Your task to perform on an android device: Show me productivity apps on the Play Store Image 0: 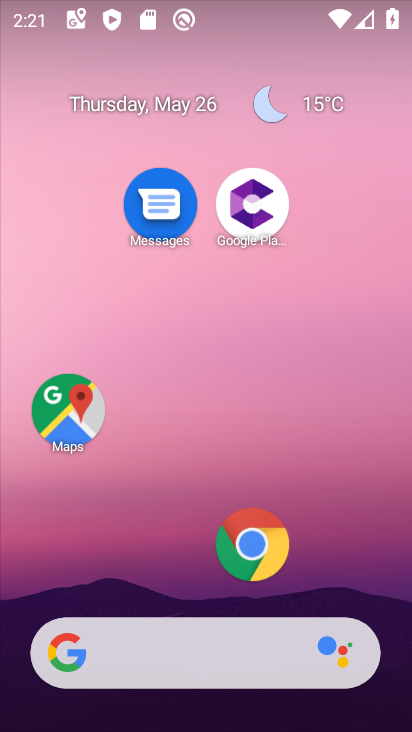
Step 0: drag from (157, 609) to (153, 149)
Your task to perform on an android device: Show me productivity apps on the Play Store Image 1: 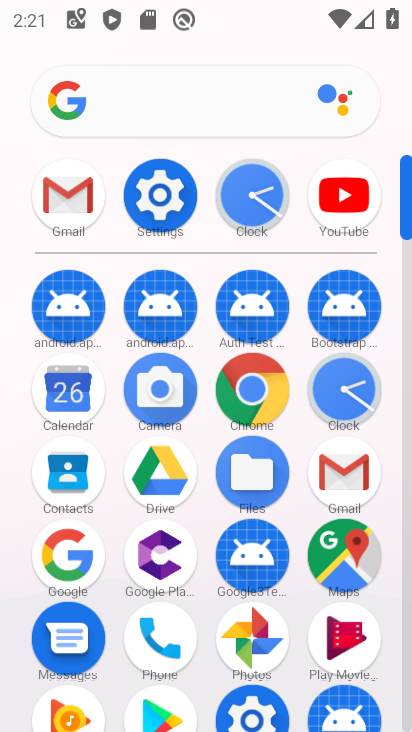
Step 1: drag from (202, 674) to (266, 115)
Your task to perform on an android device: Show me productivity apps on the Play Store Image 2: 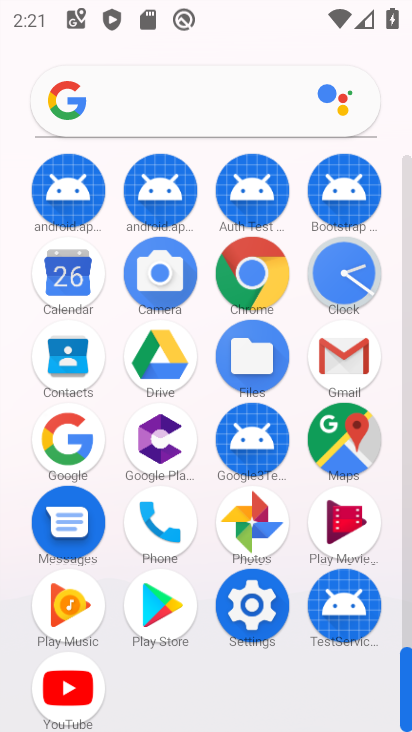
Step 2: click (163, 640)
Your task to perform on an android device: Show me productivity apps on the Play Store Image 3: 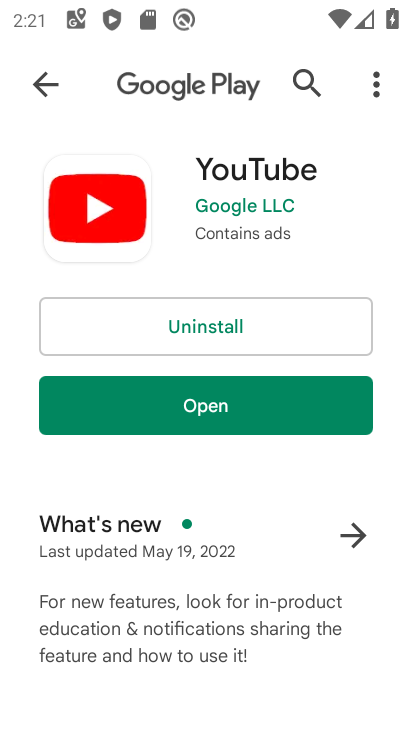
Step 3: click (55, 76)
Your task to perform on an android device: Show me productivity apps on the Play Store Image 4: 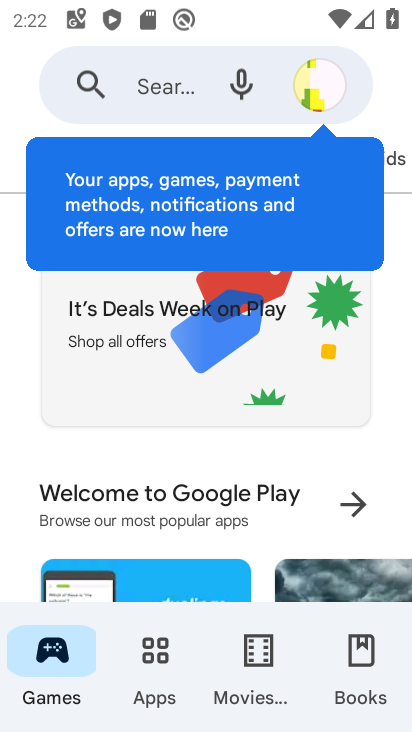
Step 4: click (169, 648)
Your task to perform on an android device: Show me productivity apps on the Play Store Image 5: 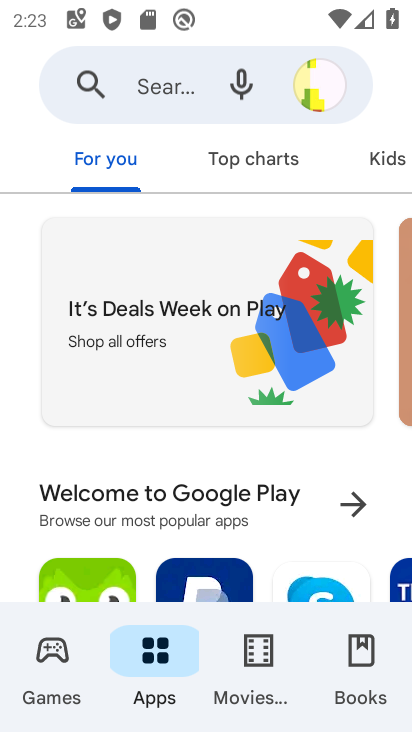
Step 5: click (235, 137)
Your task to perform on an android device: Show me productivity apps on the Play Store Image 6: 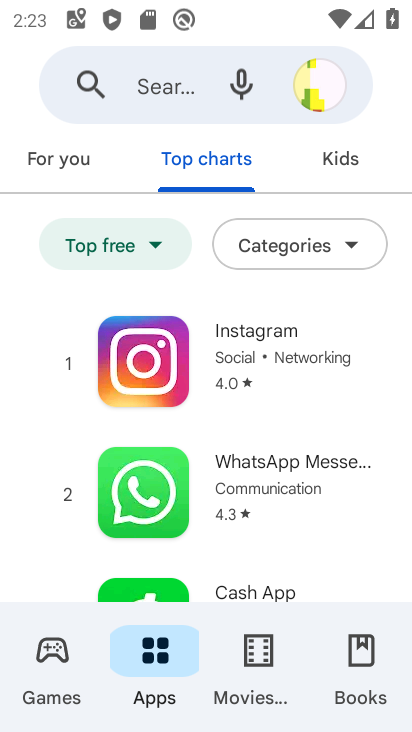
Step 6: click (361, 165)
Your task to perform on an android device: Show me productivity apps on the Play Store Image 7: 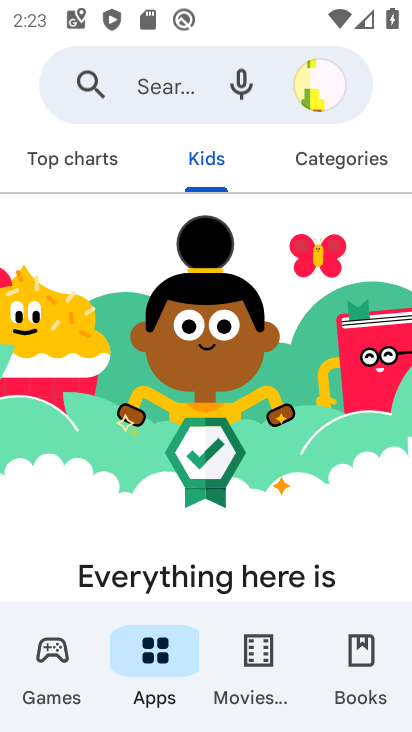
Step 7: click (377, 162)
Your task to perform on an android device: Show me productivity apps on the Play Store Image 8: 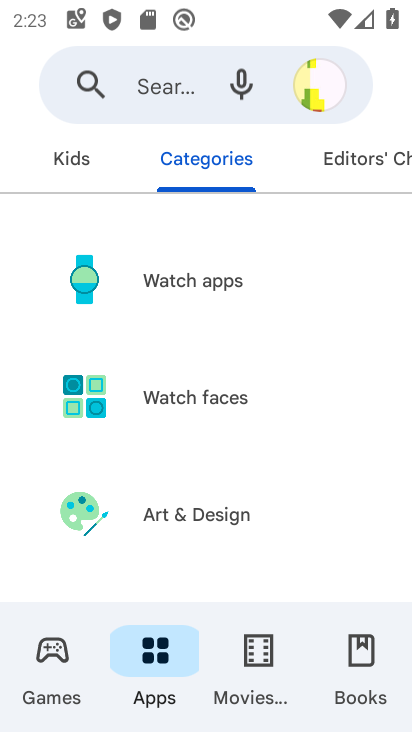
Step 8: drag from (146, 549) to (135, 186)
Your task to perform on an android device: Show me productivity apps on the Play Store Image 9: 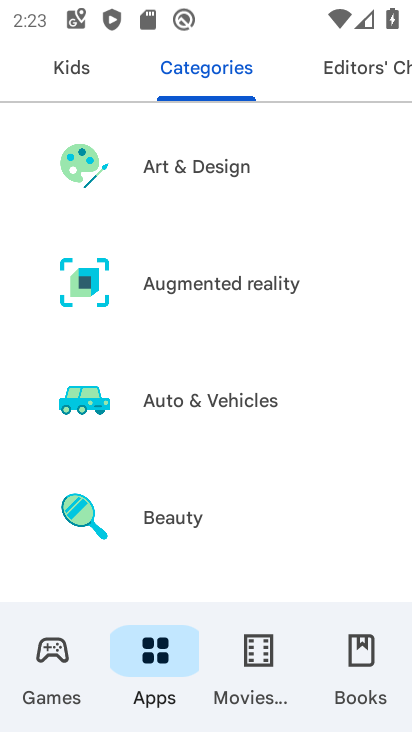
Step 9: drag from (89, 584) to (192, 4)
Your task to perform on an android device: Show me productivity apps on the Play Store Image 10: 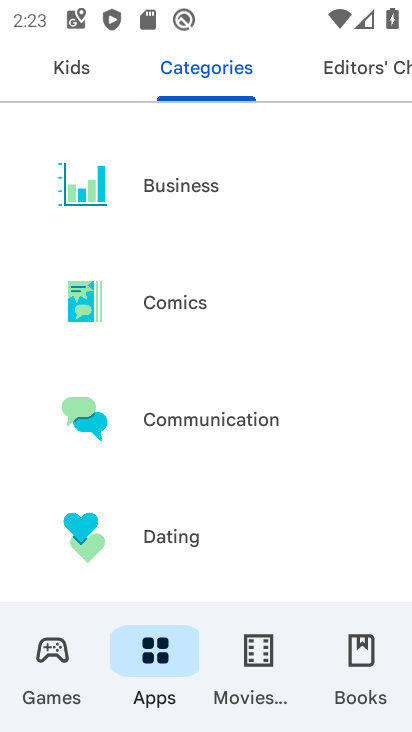
Step 10: drag from (114, 559) to (178, 97)
Your task to perform on an android device: Show me productivity apps on the Play Store Image 11: 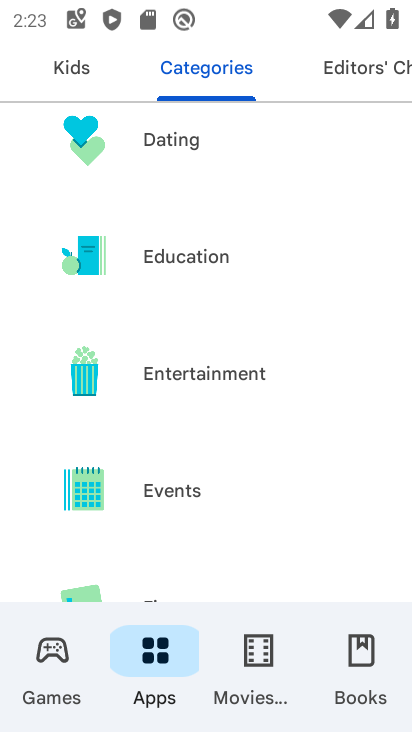
Step 11: drag from (137, 590) to (209, 64)
Your task to perform on an android device: Show me productivity apps on the Play Store Image 12: 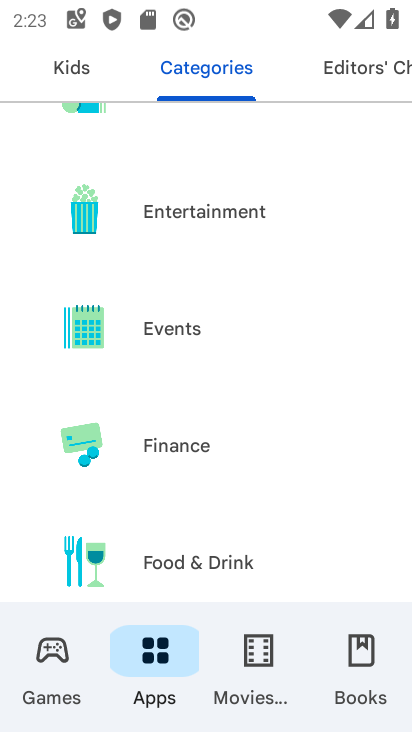
Step 12: drag from (109, 554) to (196, 1)
Your task to perform on an android device: Show me productivity apps on the Play Store Image 13: 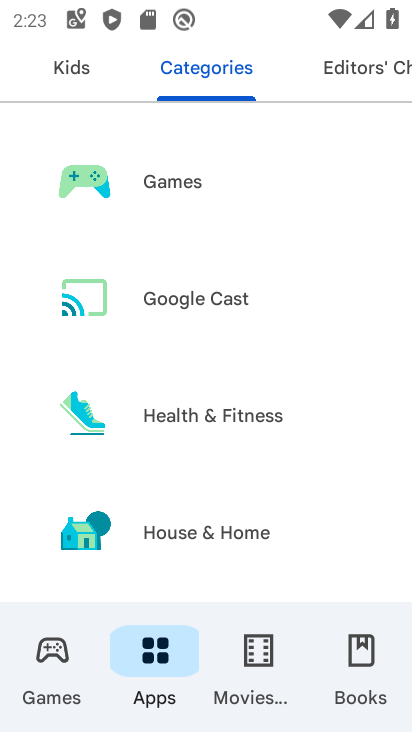
Step 13: drag from (106, 557) to (152, 112)
Your task to perform on an android device: Show me productivity apps on the Play Store Image 14: 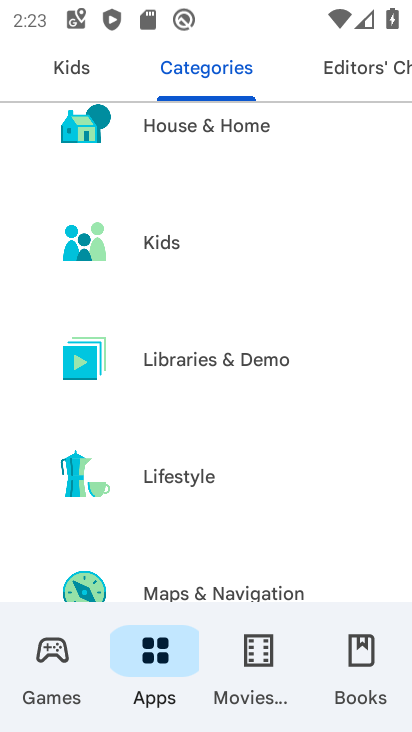
Step 14: drag from (120, 528) to (159, 50)
Your task to perform on an android device: Show me productivity apps on the Play Store Image 15: 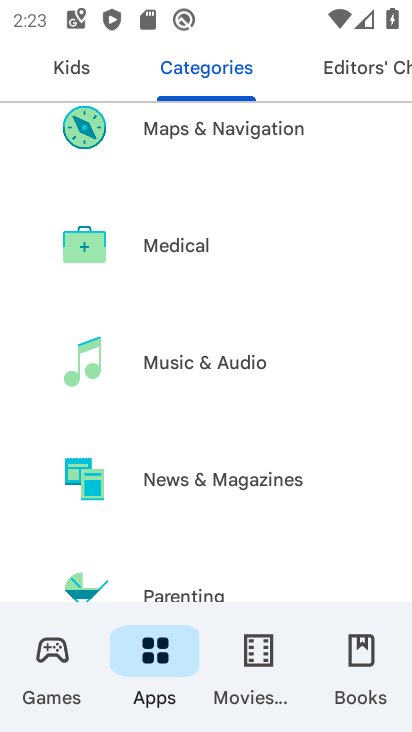
Step 15: drag from (127, 558) to (156, 189)
Your task to perform on an android device: Show me productivity apps on the Play Store Image 16: 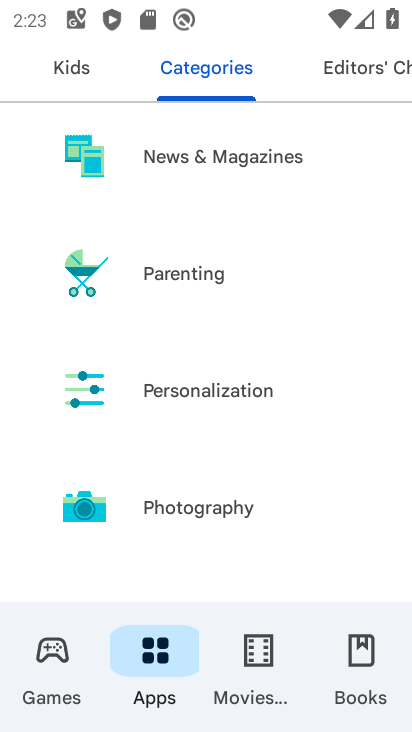
Step 16: drag from (98, 571) to (162, 100)
Your task to perform on an android device: Show me productivity apps on the Play Store Image 17: 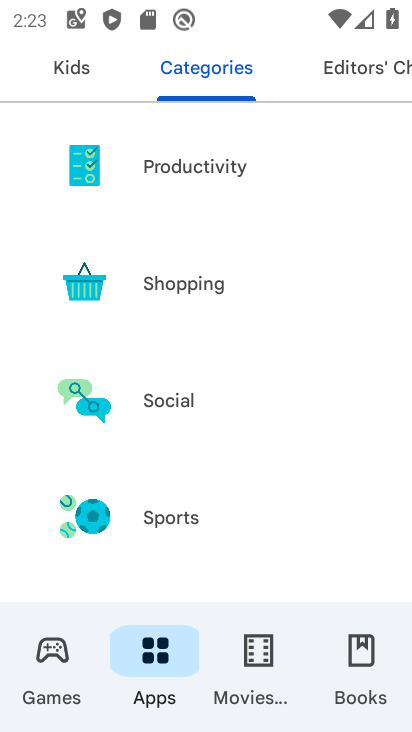
Step 17: click (178, 160)
Your task to perform on an android device: Show me productivity apps on the Play Store Image 18: 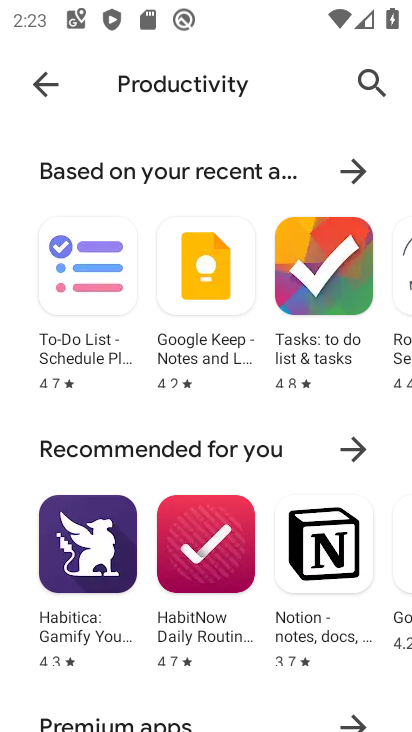
Step 18: task complete